Your task to perform on an android device: check the backup settings in the google photos Image 0: 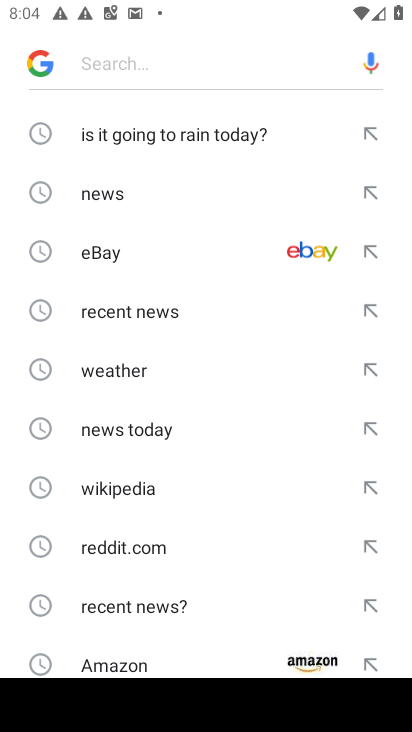
Step 0: press home button
Your task to perform on an android device: check the backup settings in the google photos Image 1: 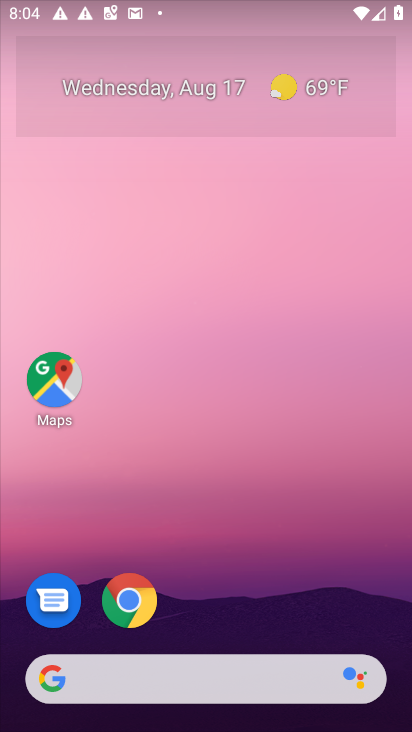
Step 1: drag from (206, 607) to (205, 245)
Your task to perform on an android device: check the backup settings in the google photos Image 2: 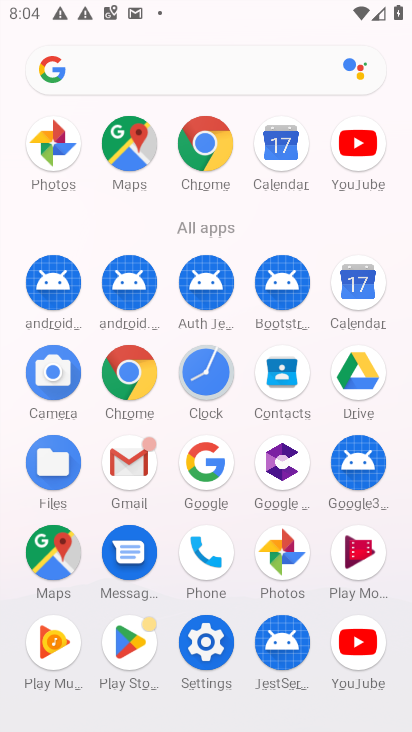
Step 2: click (277, 555)
Your task to perform on an android device: check the backup settings in the google photos Image 3: 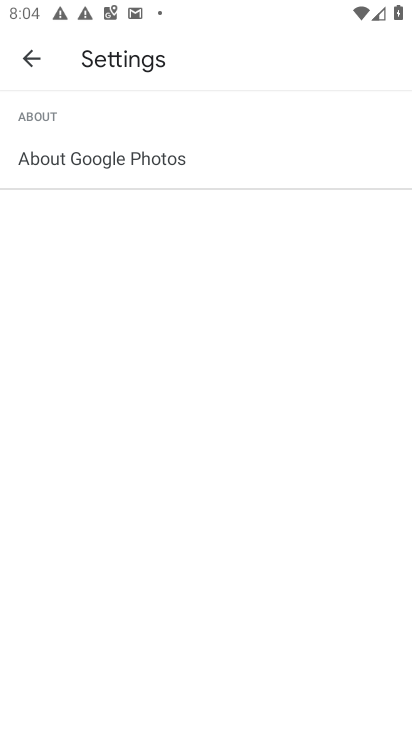
Step 3: click (33, 57)
Your task to perform on an android device: check the backup settings in the google photos Image 4: 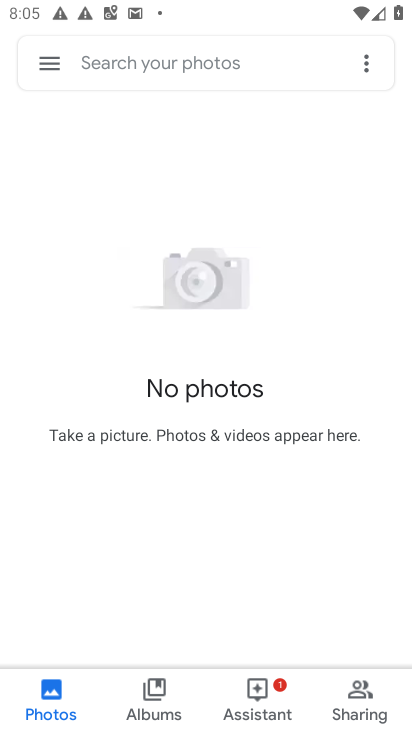
Step 4: click (50, 63)
Your task to perform on an android device: check the backup settings in the google photos Image 5: 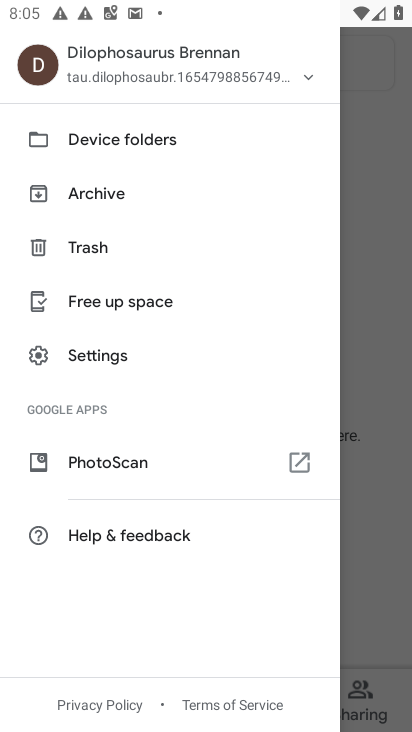
Step 5: click (105, 48)
Your task to perform on an android device: check the backup settings in the google photos Image 6: 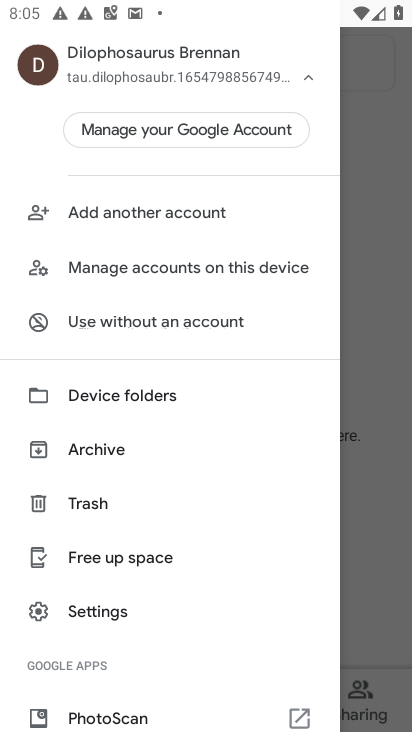
Step 6: click (127, 611)
Your task to perform on an android device: check the backup settings in the google photos Image 7: 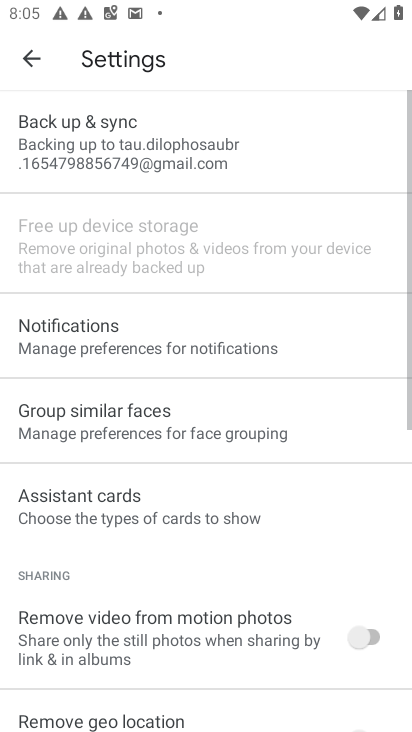
Step 7: click (193, 141)
Your task to perform on an android device: check the backup settings in the google photos Image 8: 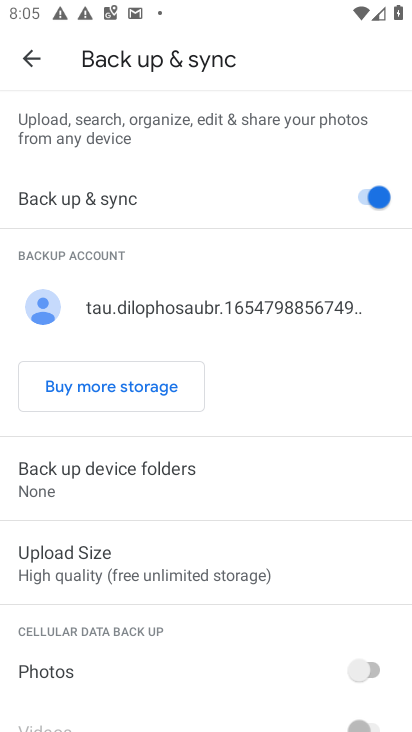
Step 8: task complete